Your task to perform on an android device: toggle notifications settings in the gmail app Image 0: 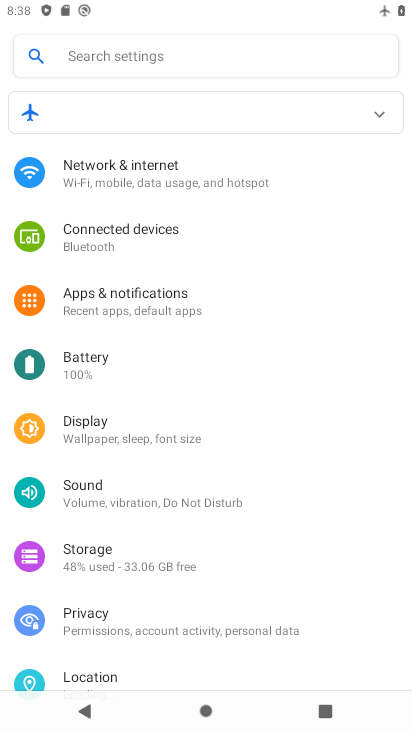
Step 0: press home button
Your task to perform on an android device: toggle notifications settings in the gmail app Image 1: 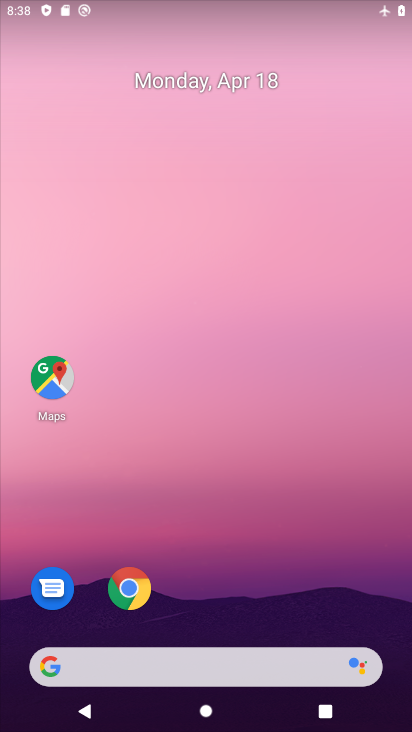
Step 1: drag from (236, 633) to (226, 79)
Your task to perform on an android device: toggle notifications settings in the gmail app Image 2: 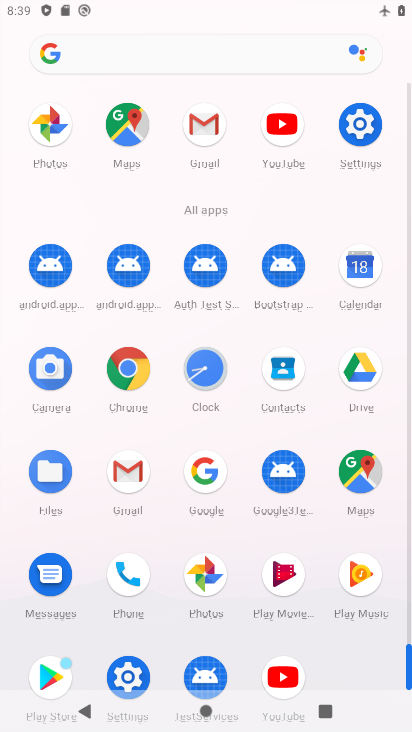
Step 2: click (122, 476)
Your task to perform on an android device: toggle notifications settings in the gmail app Image 3: 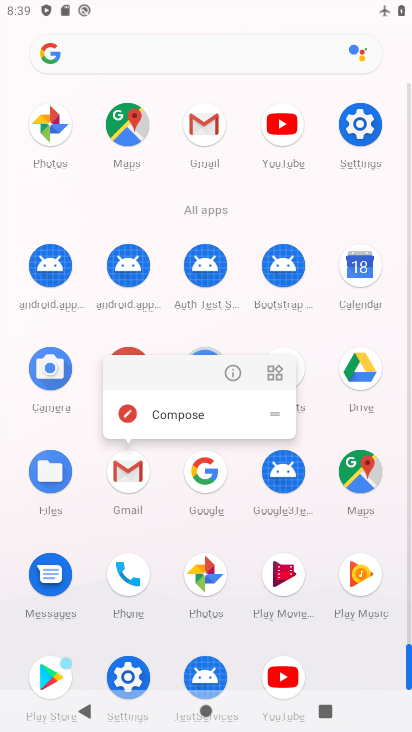
Step 3: click (121, 476)
Your task to perform on an android device: toggle notifications settings in the gmail app Image 4: 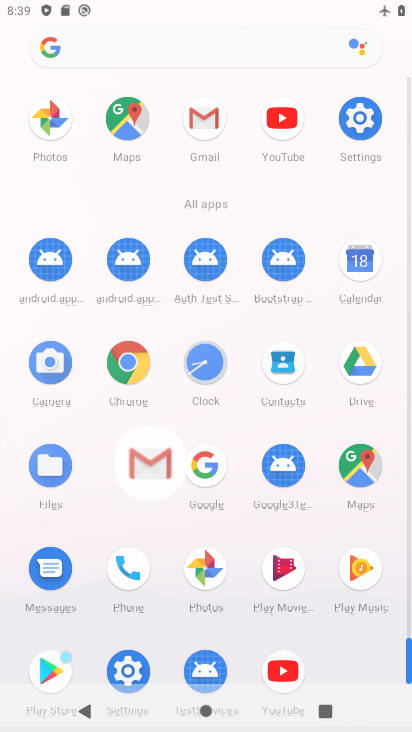
Step 4: click (124, 457)
Your task to perform on an android device: toggle notifications settings in the gmail app Image 5: 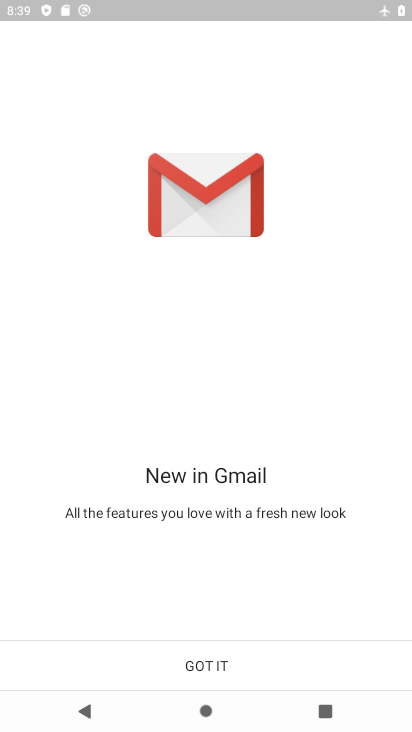
Step 5: click (231, 657)
Your task to perform on an android device: toggle notifications settings in the gmail app Image 6: 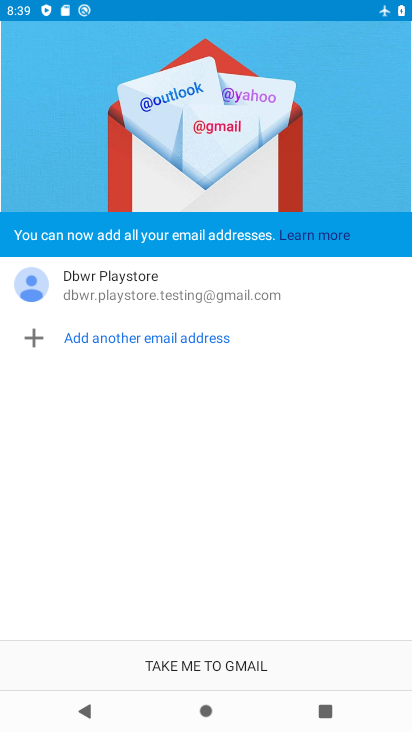
Step 6: click (231, 652)
Your task to perform on an android device: toggle notifications settings in the gmail app Image 7: 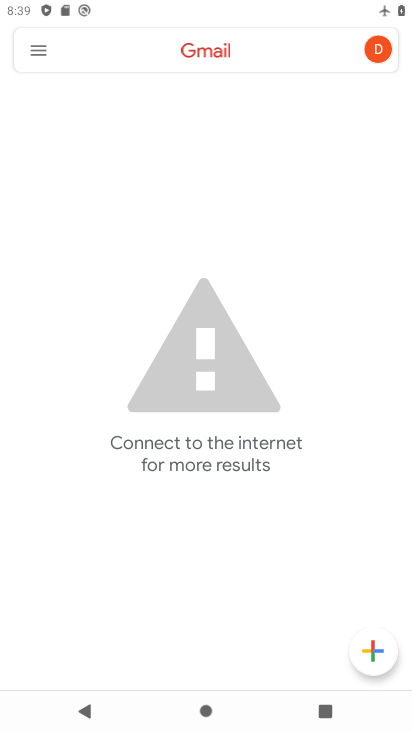
Step 7: click (29, 51)
Your task to perform on an android device: toggle notifications settings in the gmail app Image 8: 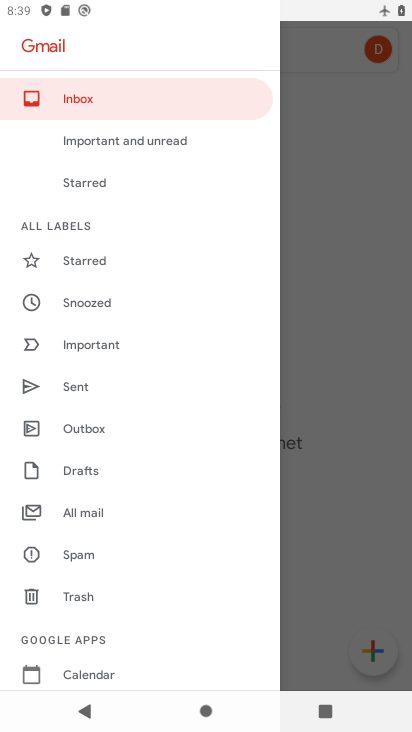
Step 8: drag from (170, 592) to (264, 119)
Your task to perform on an android device: toggle notifications settings in the gmail app Image 9: 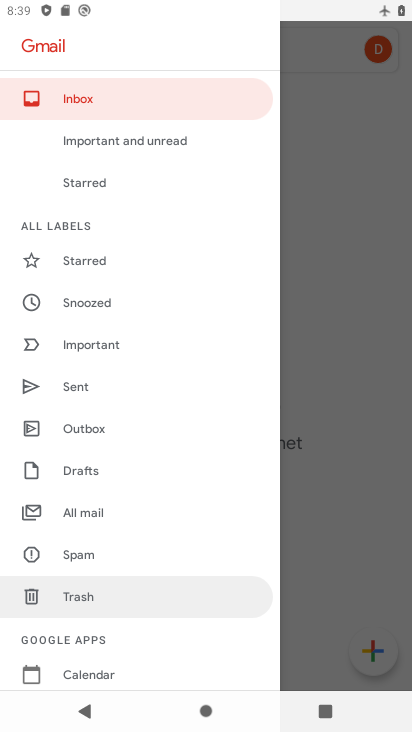
Step 9: drag from (89, 599) to (207, 123)
Your task to perform on an android device: toggle notifications settings in the gmail app Image 10: 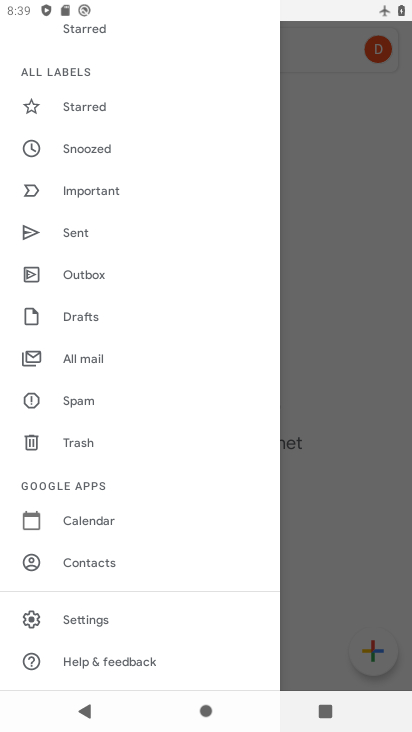
Step 10: click (88, 612)
Your task to perform on an android device: toggle notifications settings in the gmail app Image 11: 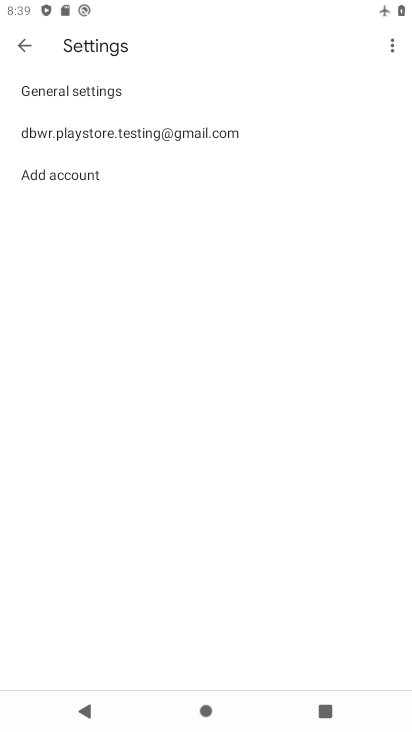
Step 11: click (172, 122)
Your task to perform on an android device: toggle notifications settings in the gmail app Image 12: 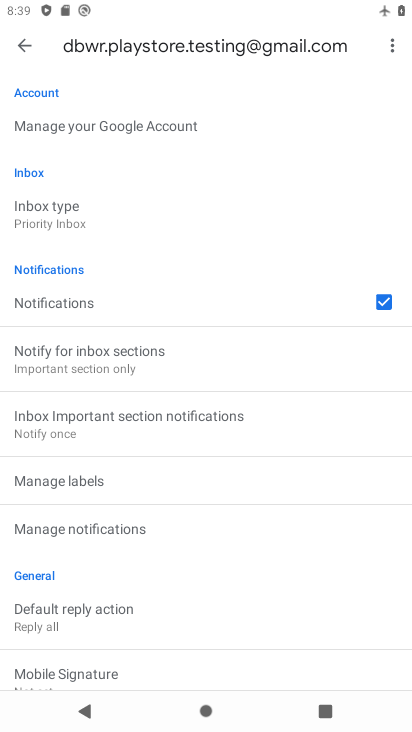
Step 12: click (108, 288)
Your task to perform on an android device: toggle notifications settings in the gmail app Image 13: 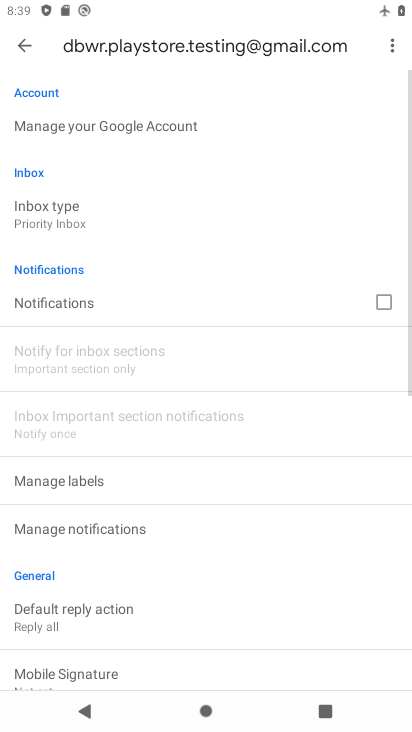
Step 13: click (106, 309)
Your task to perform on an android device: toggle notifications settings in the gmail app Image 14: 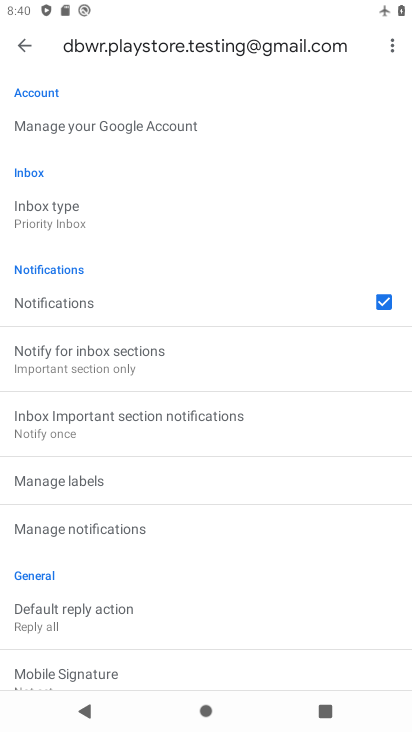
Step 14: click (98, 299)
Your task to perform on an android device: toggle notifications settings in the gmail app Image 15: 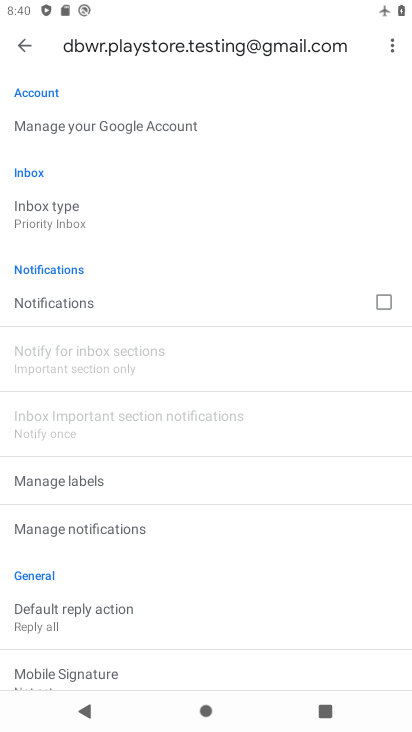
Step 15: task complete